Your task to perform on an android device: open sync settings in chrome Image 0: 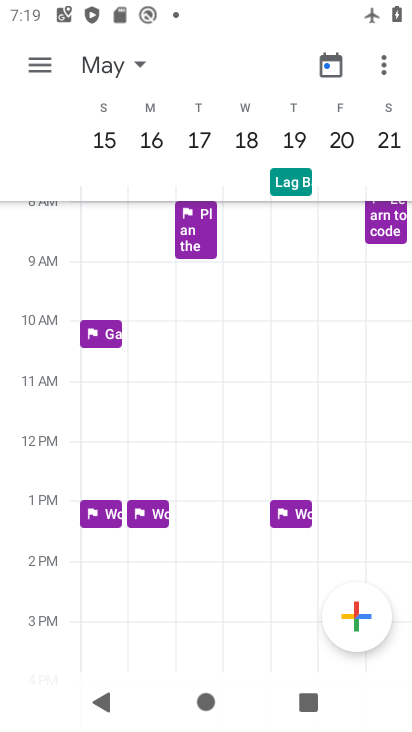
Step 0: press back button
Your task to perform on an android device: open sync settings in chrome Image 1: 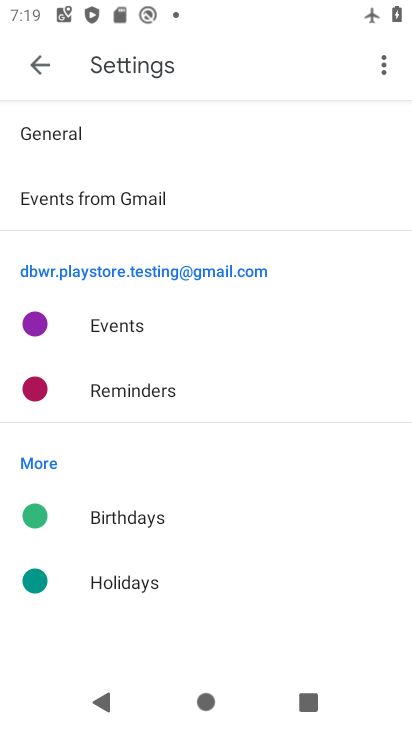
Step 1: press back button
Your task to perform on an android device: open sync settings in chrome Image 2: 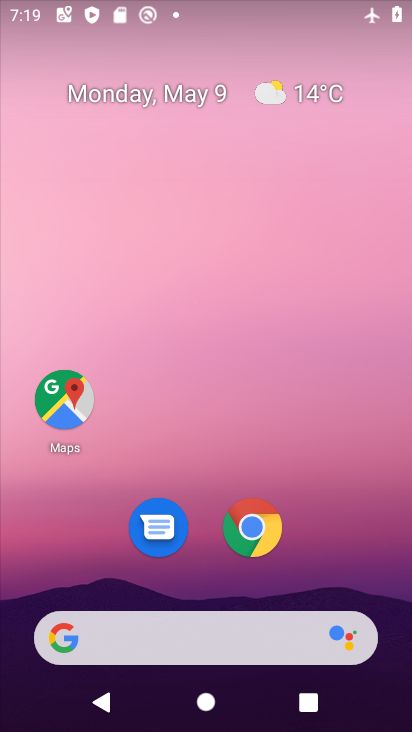
Step 2: click (256, 527)
Your task to perform on an android device: open sync settings in chrome Image 3: 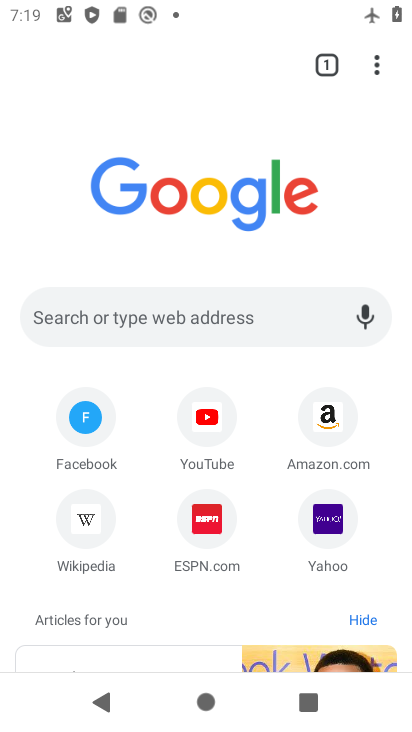
Step 3: click (377, 65)
Your task to perform on an android device: open sync settings in chrome Image 4: 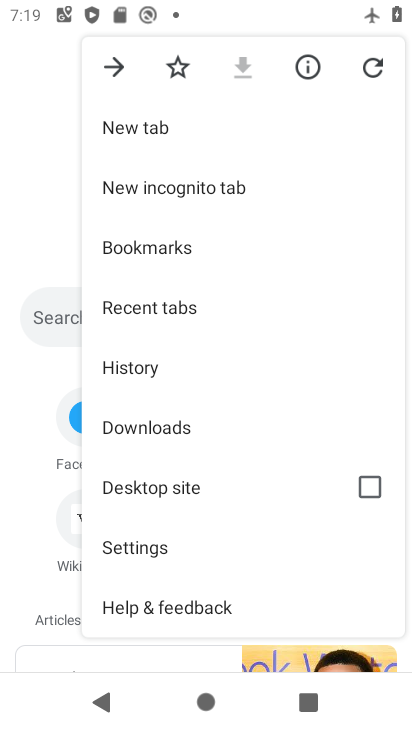
Step 4: click (127, 543)
Your task to perform on an android device: open sync settings in chrome Image 5: 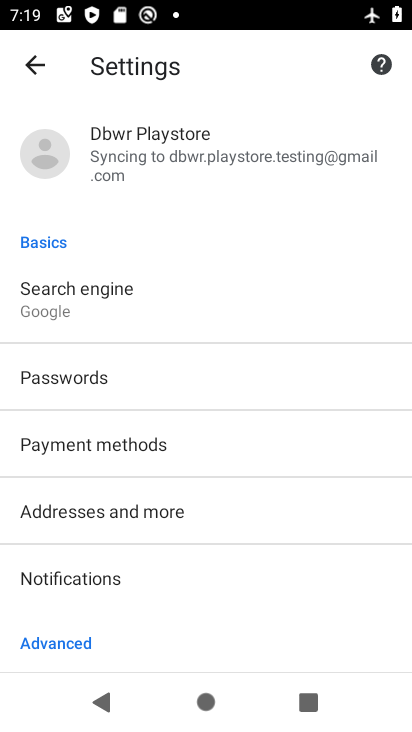
Step 5: drag from (127, 579) to (187, 471)
Your task to perform on an android device: open sync settings in chrome Image 6: 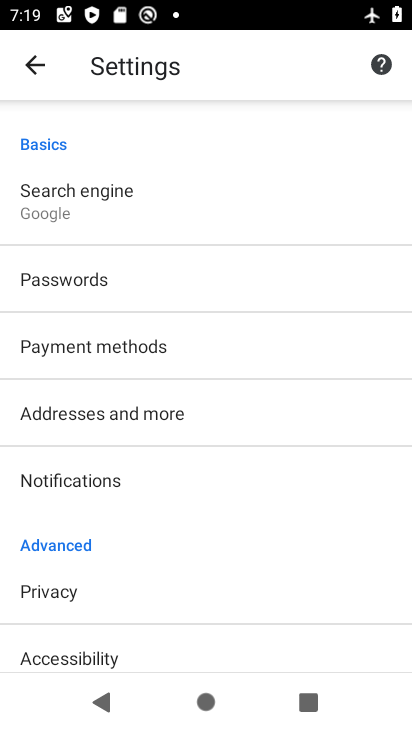
Step 6: drag from (135, 578) to (205, 459)
Your task to perform on an android device: open sync settings in chrome Image 7: 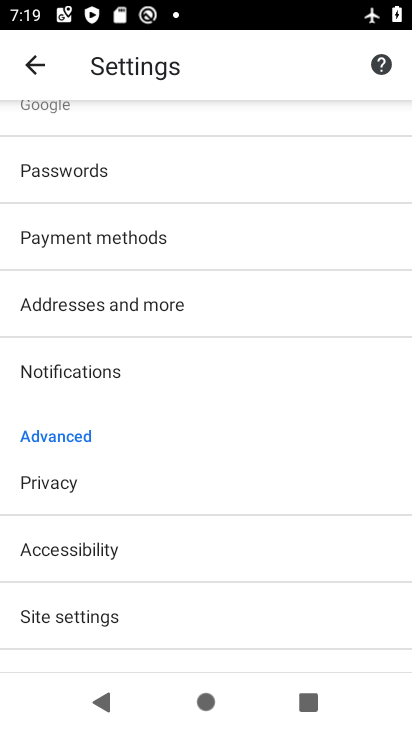
Step 7: drag from (153, 558) to (263, 436)
Your task to perform on an android device: open sync settings in chrome Image 8: 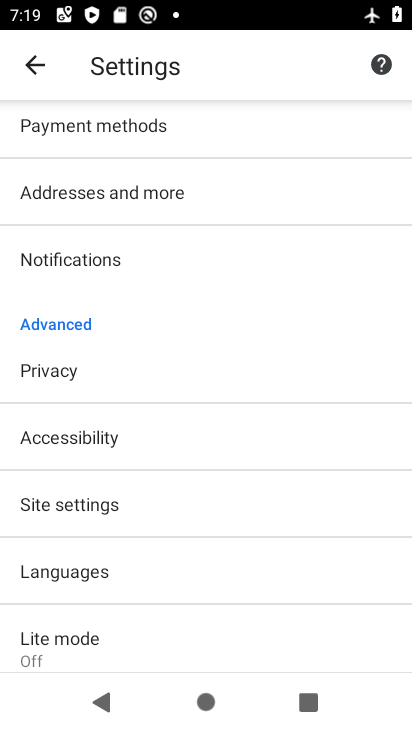
Step 8: click (98, 510)
Your task to perform on an android device: open sync settings in chrome Image 9: 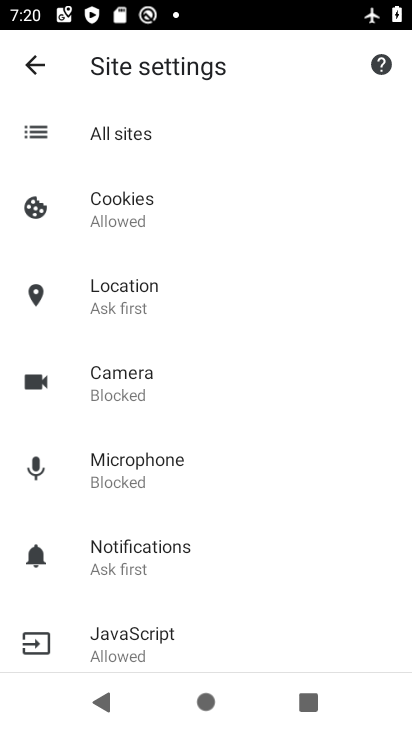
Step 9: drag from (185, 574) to (220, 475)
Your task to perform on an android device: open sync settings in chrome Image 10: 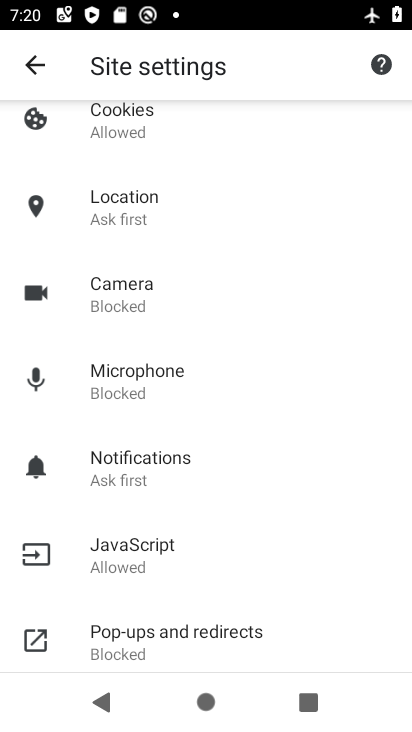
Step 10: drag from (175, 569) to (238, 453)
Your task to perform on an android device: open sync settings in chrome Image 11: 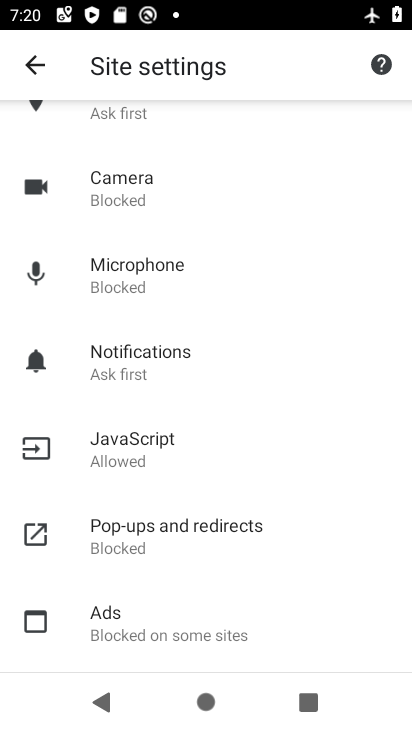
Step 11: drag from (178, 578) to (260, 437)
Your task to perform on an android device: open sync settings in chrome Image 12: 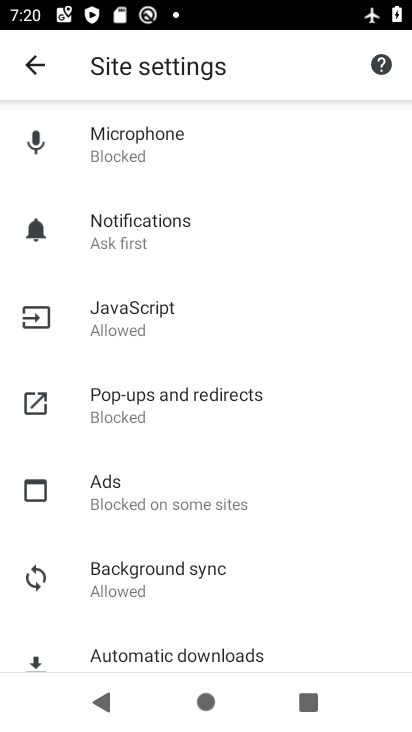
Step 12: drag from (169, 542) to (282, 413)
Your task to perform on an android device: open sync settings in chrome Image 13: 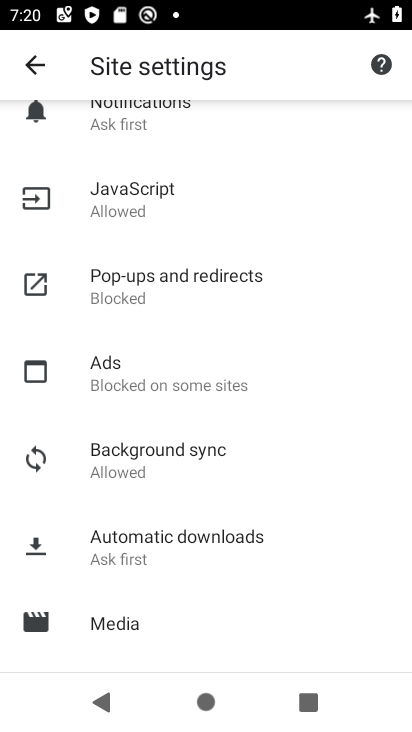
Step 13: click (226, 449)
Your task to perform on an android device: open sync settings in chrome Image 14: 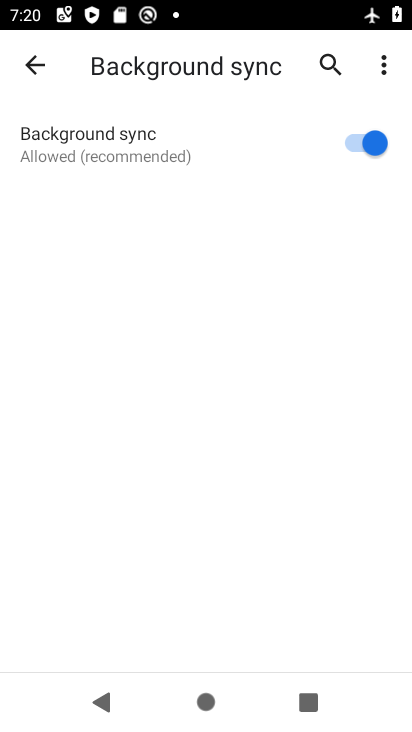
Step 14: task complete